Your task to perform on an android device: open wifi settings Image 0: 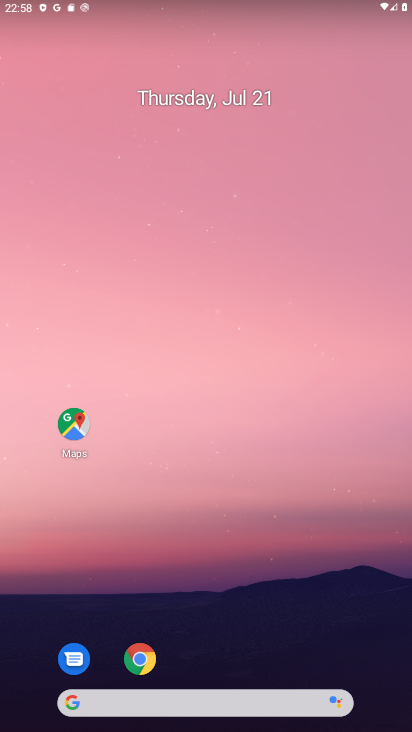
Step 0: drag from (210, 712) to (153, 125)
Your task to perform on an android device: open wifi settings Image 1: 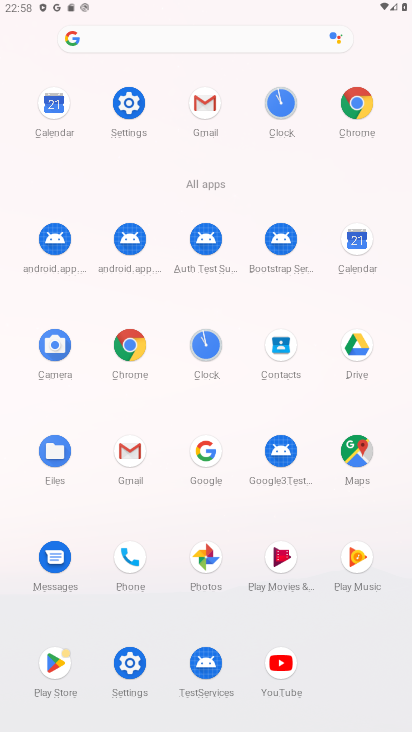
Step 1: click (129, 103)
Your task to perform on an android device: open wifi settings Image 2: 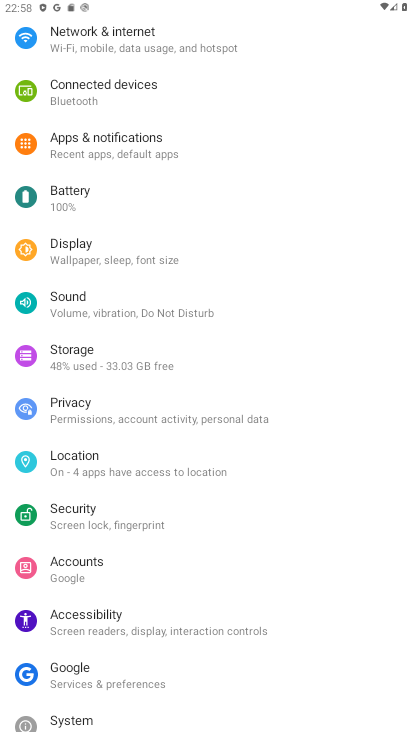
Step 2: click (121, 41)
Your task to perform on an android device: open wifi settings Image 3: 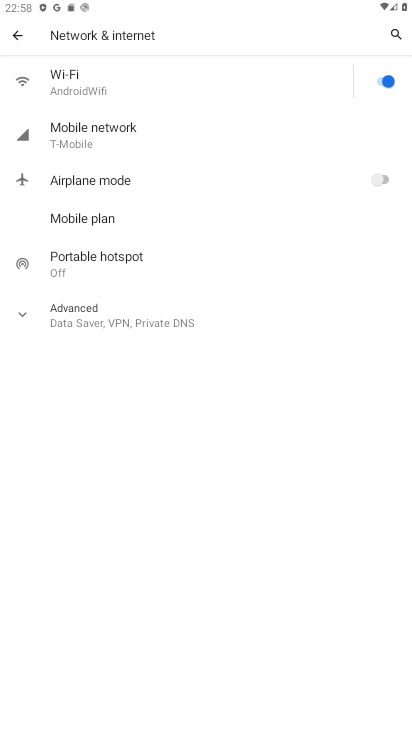
Step 3: click (81, 84)
Your task to perform on an android device: open wifi settings Image 4: 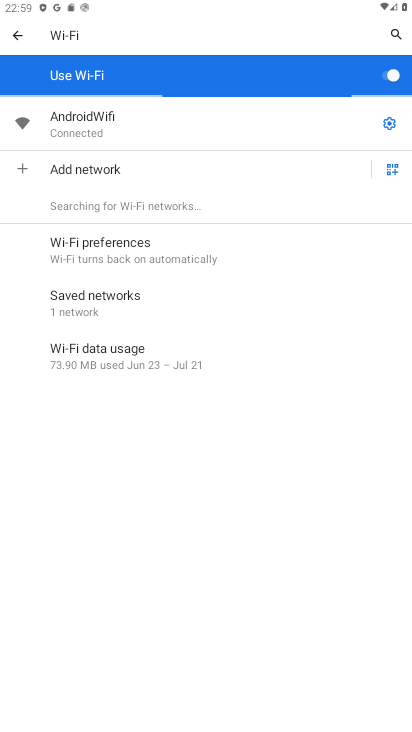
Step 4: click (387, 128)
Your task to perform on an android device: open wifi settings Image 5: 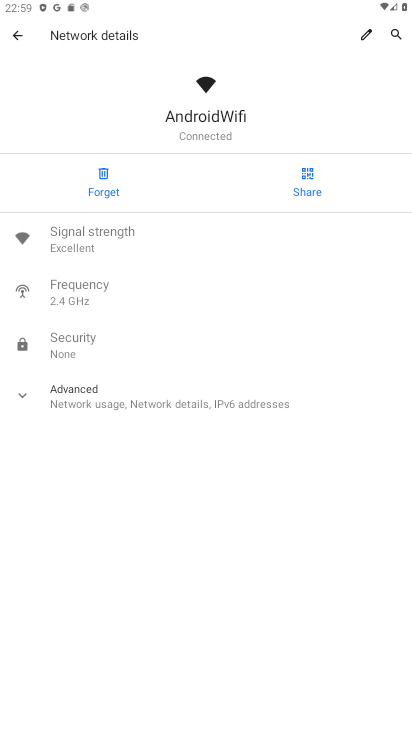
Step 5: task complete